Your task to perform on an android device: Search for pizza restaurants on Maps Image 0: 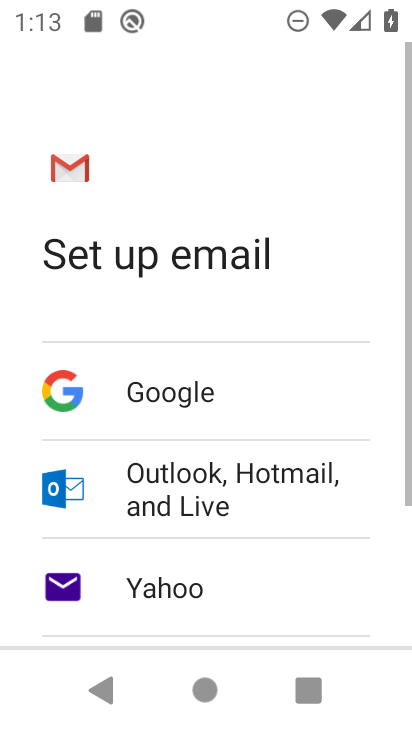
Step 0: press home button
Your task to perform on an android device: Search for pizza restaurants on Maps Image 1: 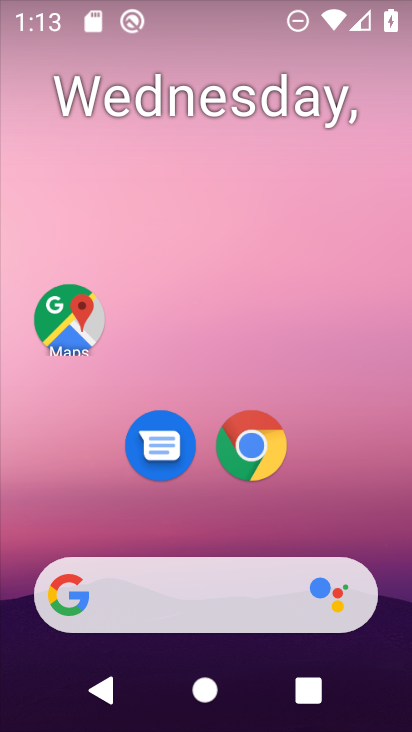
Step 1: drag from (397, 606) to (259, 27)
Your task to perform on an android device: Search for pizza restaurants on Maps Image 2: 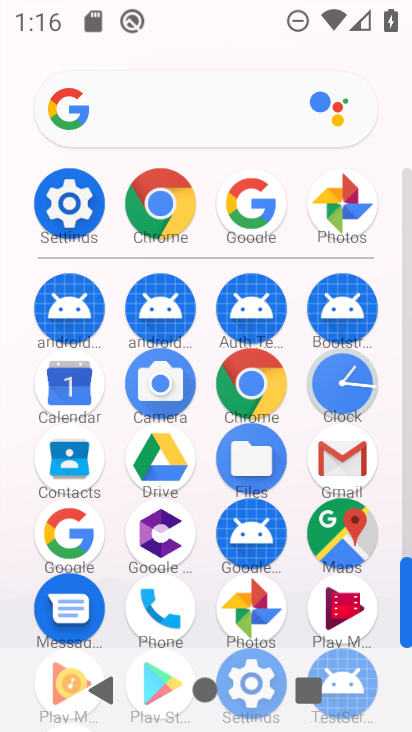
Step 2: click (318, 538)
Your task to perform on an android device: Search for pizza restaurants on Maps Image 3: 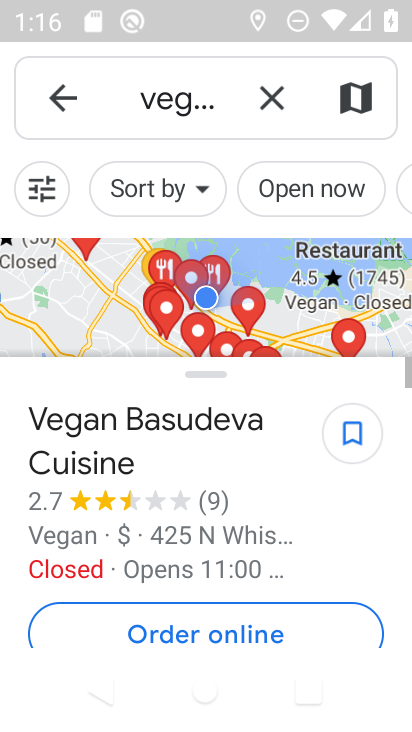
Step 3: click (276, 89)
Your task to perform on an android device: Search for pizza restaurants on Maps Image 4: 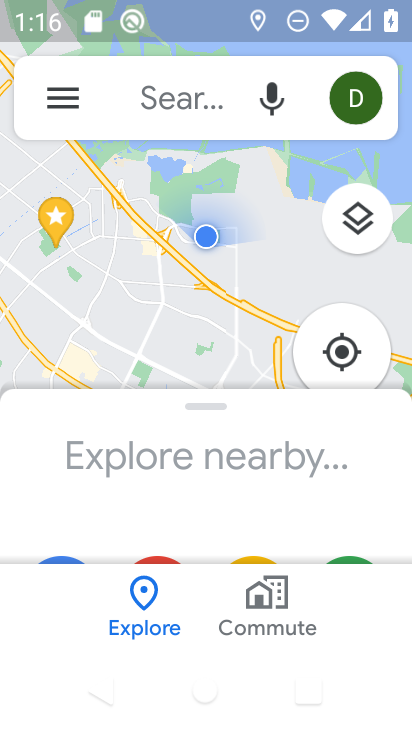
Step 4: click (150, 100)
Your task to perform on an android device: Search for pizza restaurants on Maps Image 5: 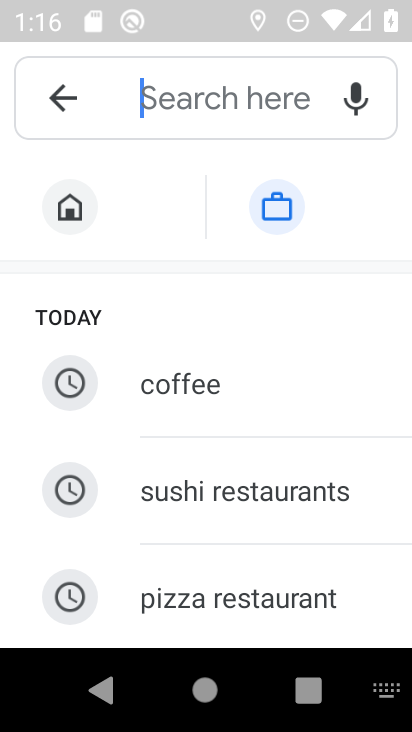
Step 5: click (200, 620)
Your task to perform on an android device: Search for pizza restaurants on Maps Image 6: 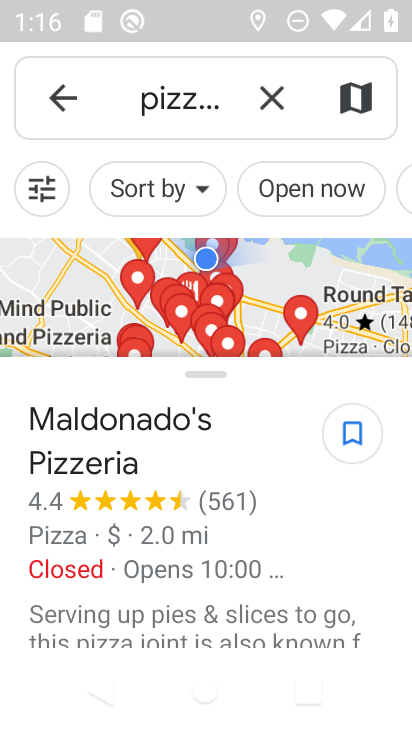
Step 6: task complete